Your task to perform on an android device: Go to Reddit.com Image 0: 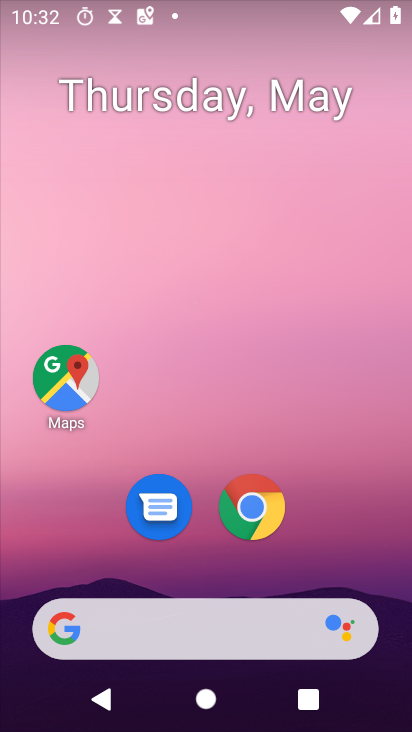
Step 0: click (248, 531)
Your task to perform on an android device: Go to Reddit.com Image 1: 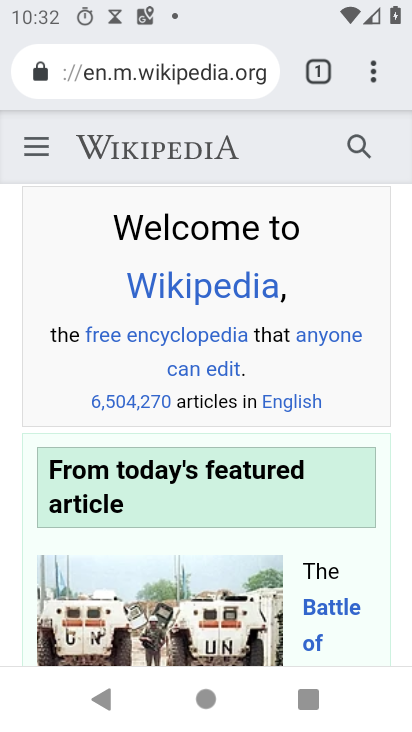
Step 1: click (321, 69)
Your task to perform on an android device: Go to Reddit.com Image 2: 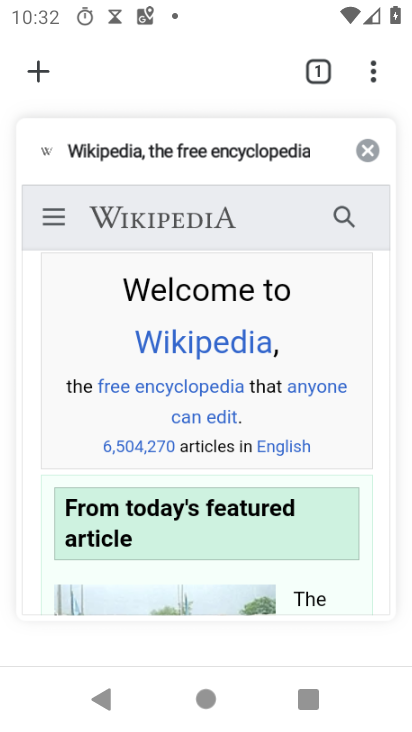
Step 2: click (364, 153)
Your task to perform on an android device: Go to Reddit.com Image 3: 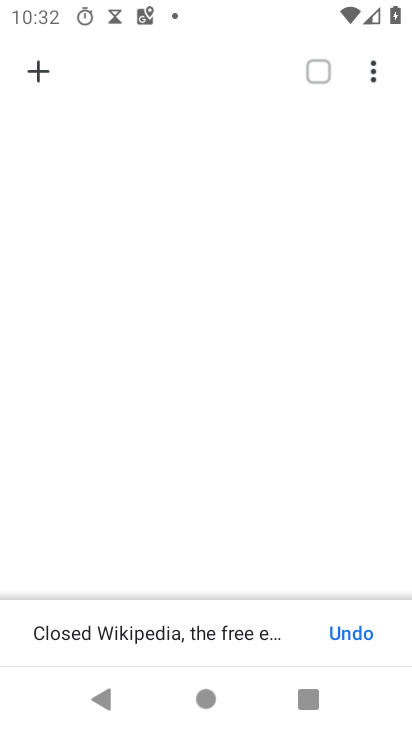
Step 3: click (45, 69)
Your task to perform on an android device: Go to Reddit.com Image 4: 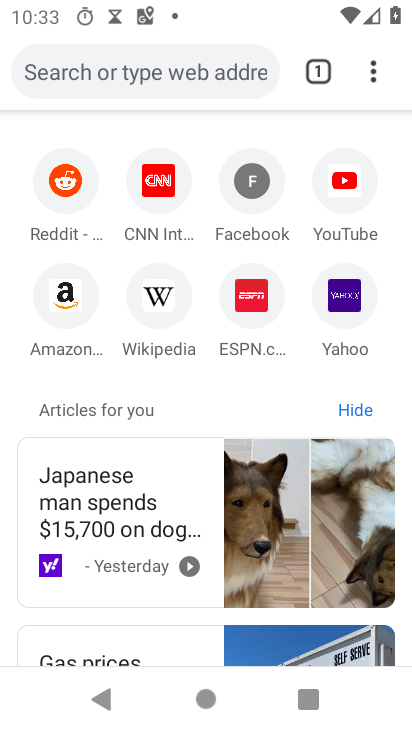
Step 4: click (206, 88)
Your task to perform on an android device: Go to Reddit.com Image 5: 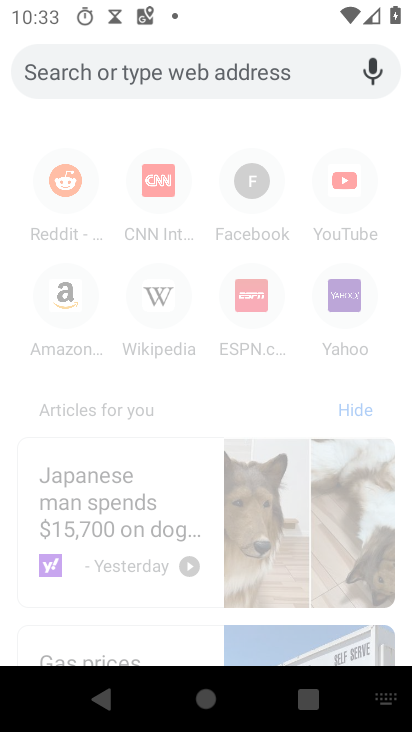
Step 5: type "reddit.com"
Your task to perform on an android device: Go to Reddit.com Image 6: 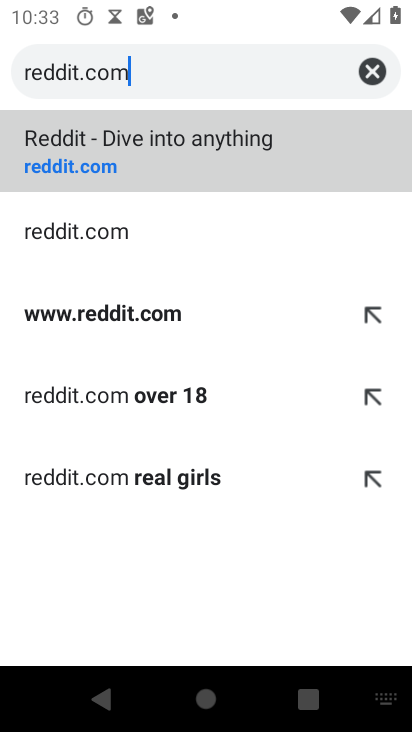
Step 6: click (127, 165)
Your task to perform on an android device: Go to Reddit.com Image 7: 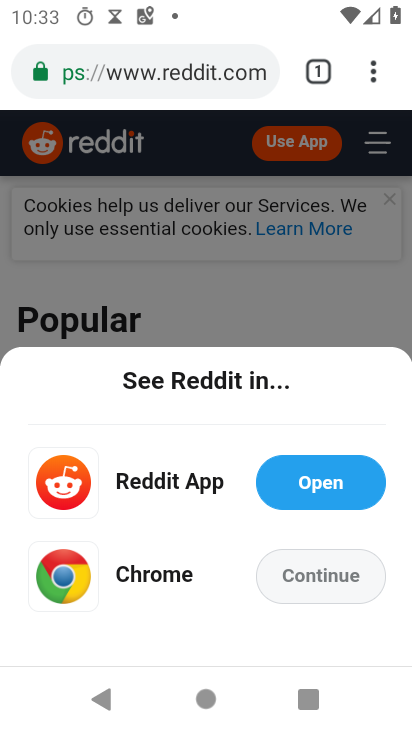
Step 7: click (343, 577)
Your task to perform on an android device: Go to Reddit.com Image 8: 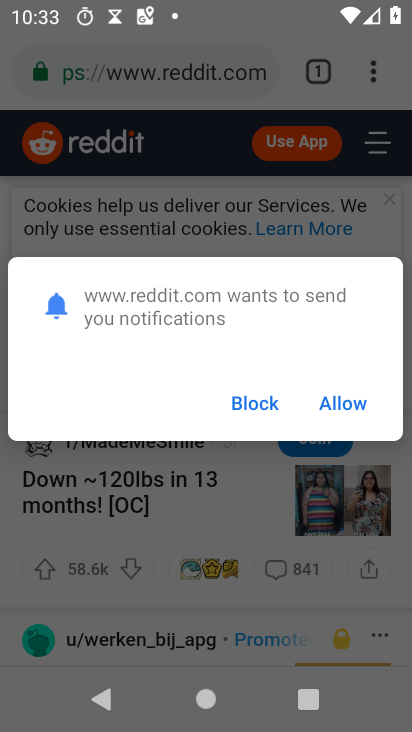
Step 8: task complete